Your task to perform on an android device: add a contact in the contacts app Image 0: 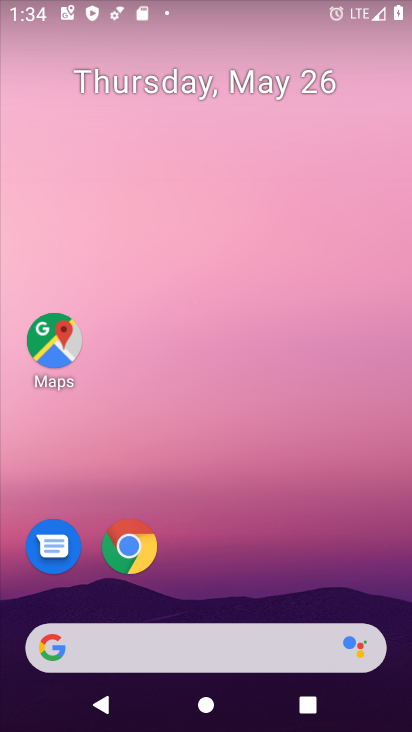
Step 0: drag from (352, 546) to (138, 196)
Your task to perform on an android device: add a contact in the contacts app Image 1: 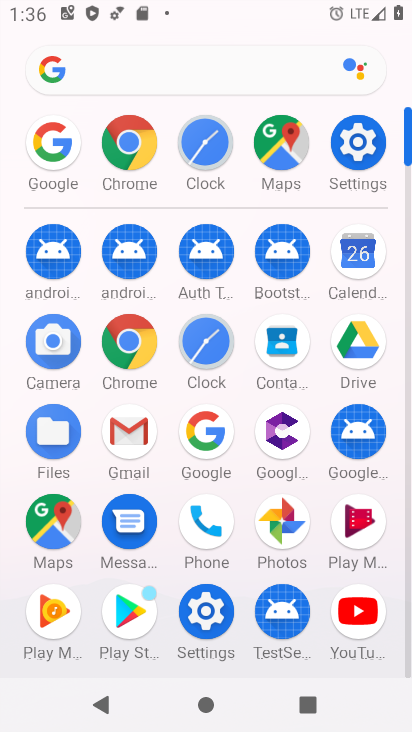
Step 1: click (266, 330)
Your task to perform on an android device: add a contact in the contacts app Image 2: 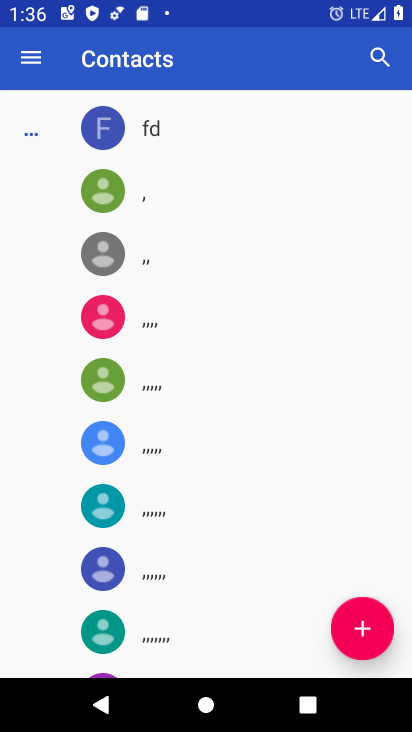
Step 2: click (348, 629)
Your task to perform on an android device: add a contact in the contacts app Image 3: 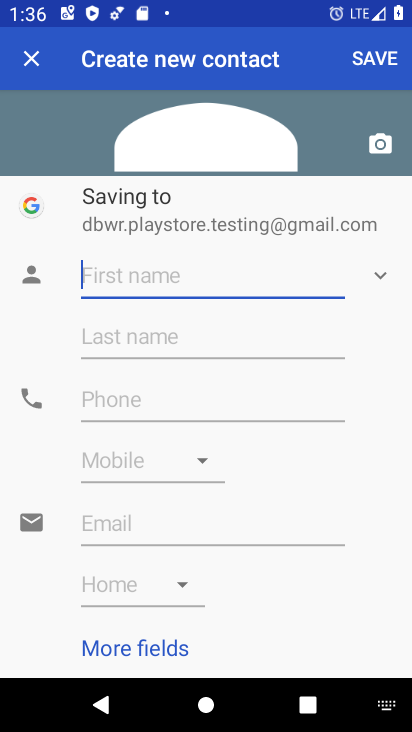
Step 3: type "prince"
Your task to perform on an android device: add a contact in the contacts app Image 4: 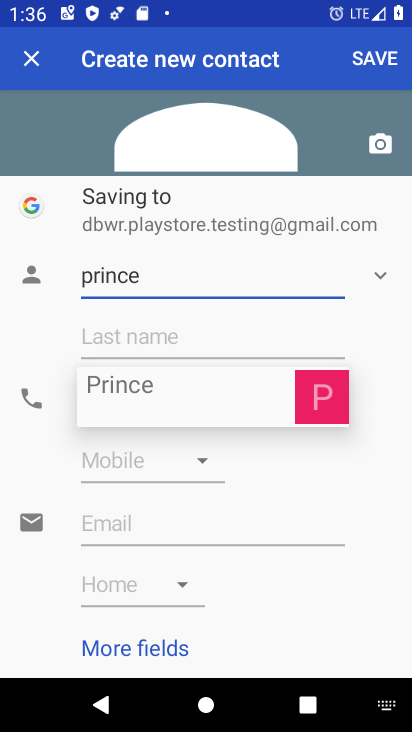
Step 4: type "  "
Your task to perform on an android device: add a contact in the contacts app Image 5: 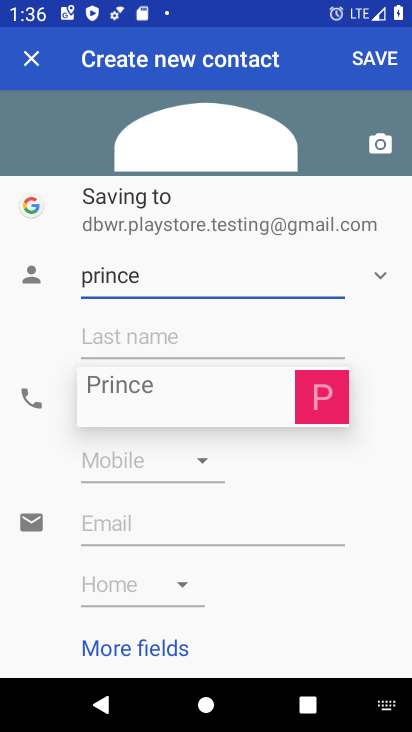
Step 5: click (367, 48)
Your task to perform on an android device: add a contact in the contacts app Image 6: 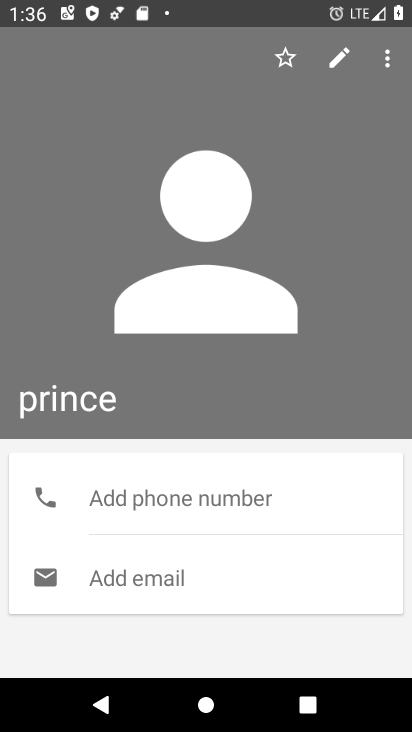
Step 6: task complete